Your task to perform on an android device: allow cookies in the chrome app Image 0: 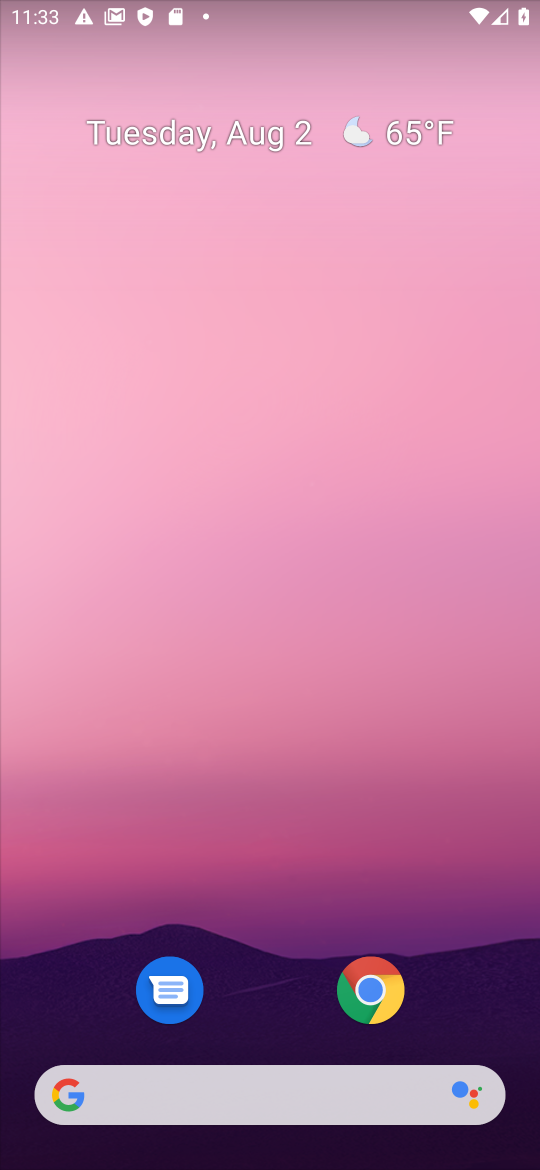
Step 0: drag from (254, 964) to (344, 267)
Your task to perform on an android device: allow cookies in the chrome app Image 1: 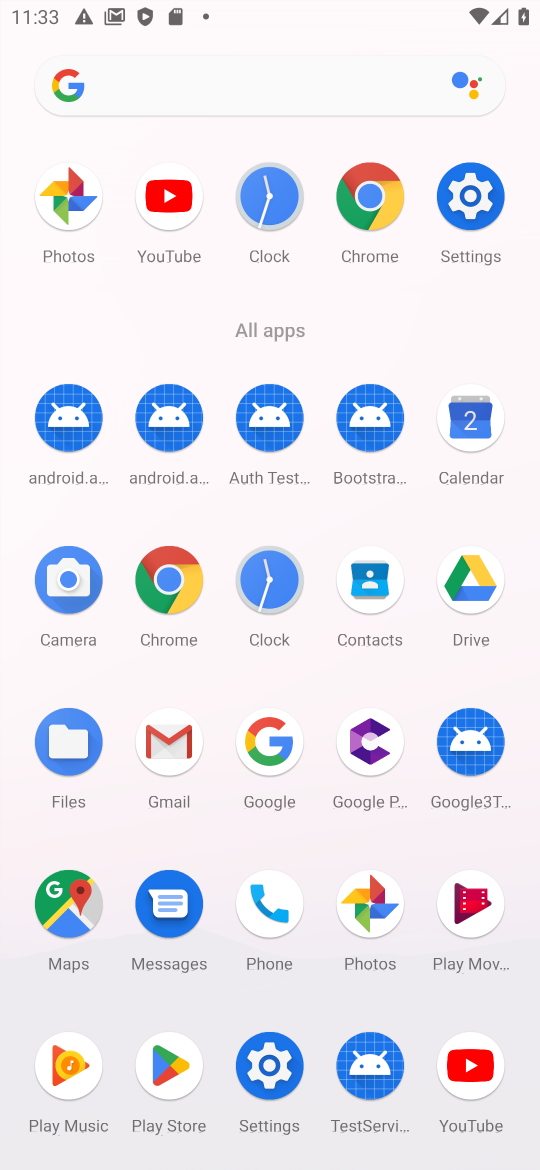
Step 1: click (384, 237)
Your task to perform on an android device: allow cookies in the chrome app Image 2: 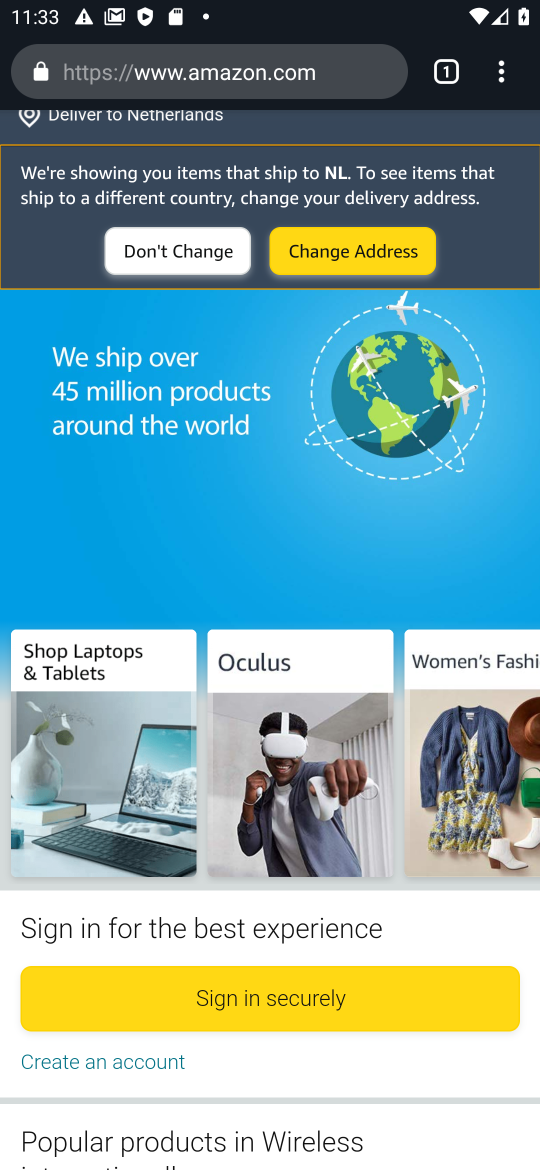
Step 2: click (501, 69)
Your task to perform on an android device: allow cookies in the chrome app Image 3: 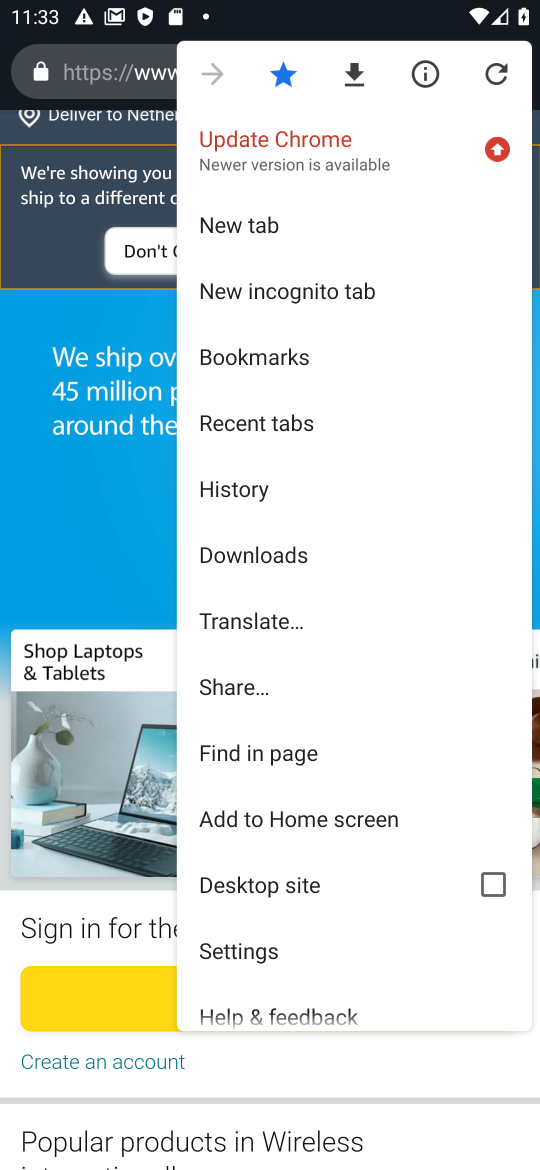
Step 3: click (241, 954)
Your task to perform on an android device: allow cookies in the chrome app Image 4: 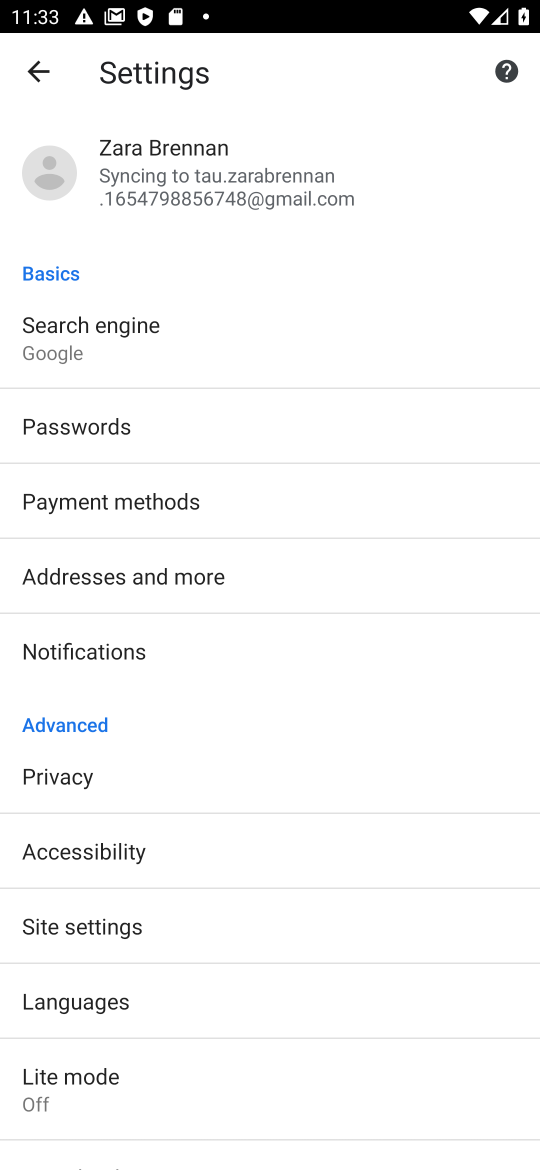
Step 4: drag from (141, 967) to (145, 575)
Your task to perform on an android device: allow cookies in the chrome app Image 5: 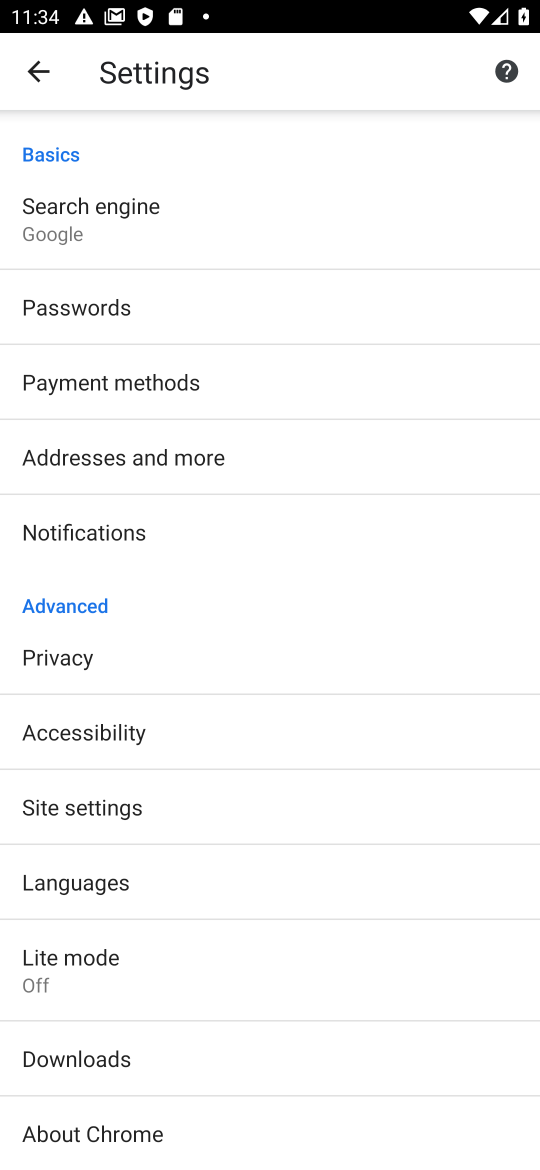
Step 5: click (125, 806)
Your task to perform on an android device: allow cookies in the chrome app Image 6: 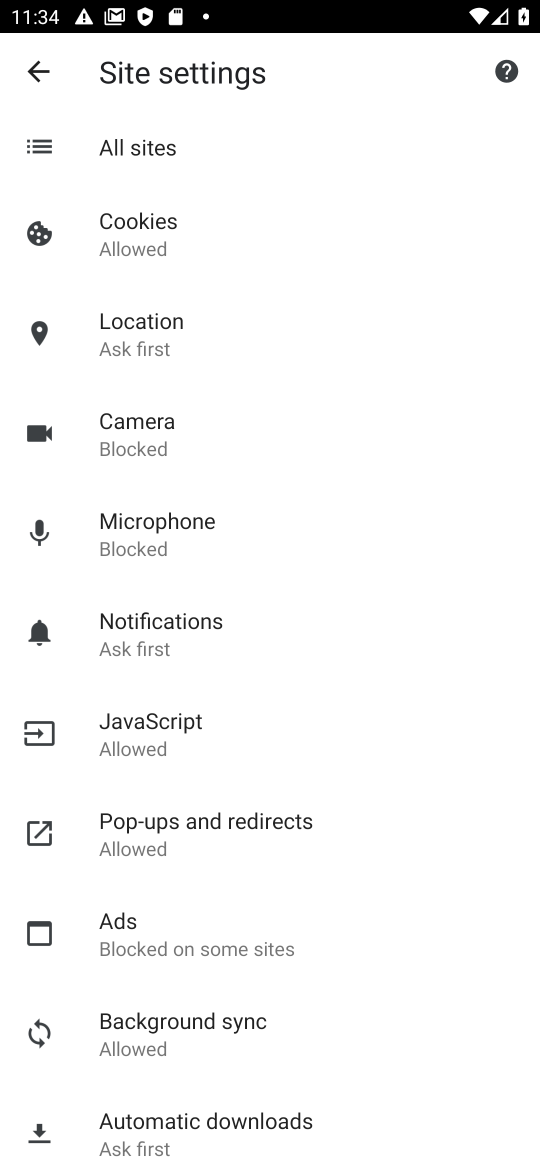
Step 6: click (151, 234)
Your task to perform on an android device: allow cookies in the chrome app Image 7: 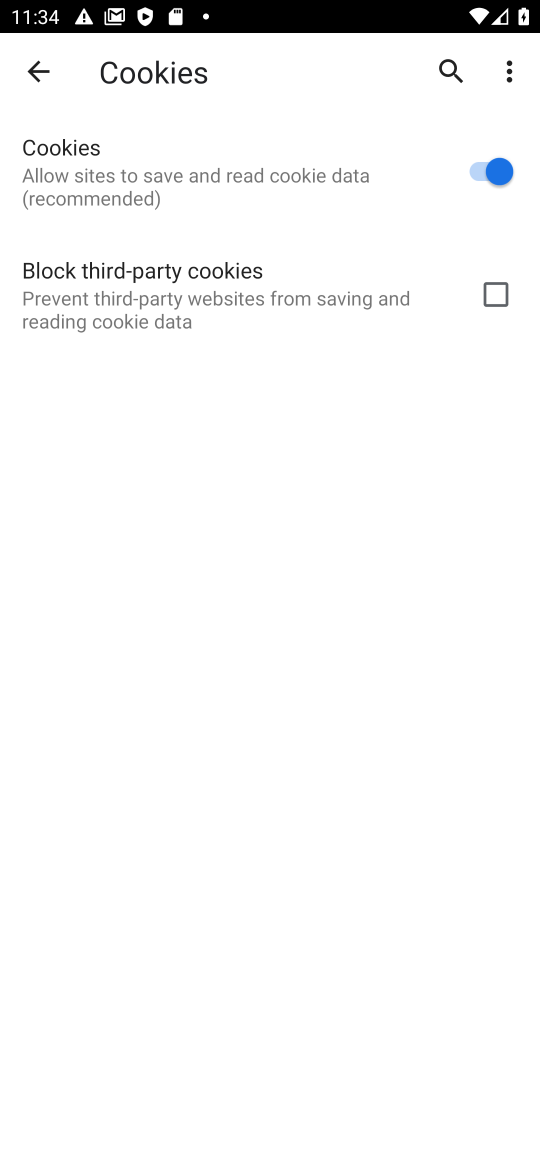
Step 7: task complete